Your task to perform on an android device: open app "Firefox Browser" Image 0: 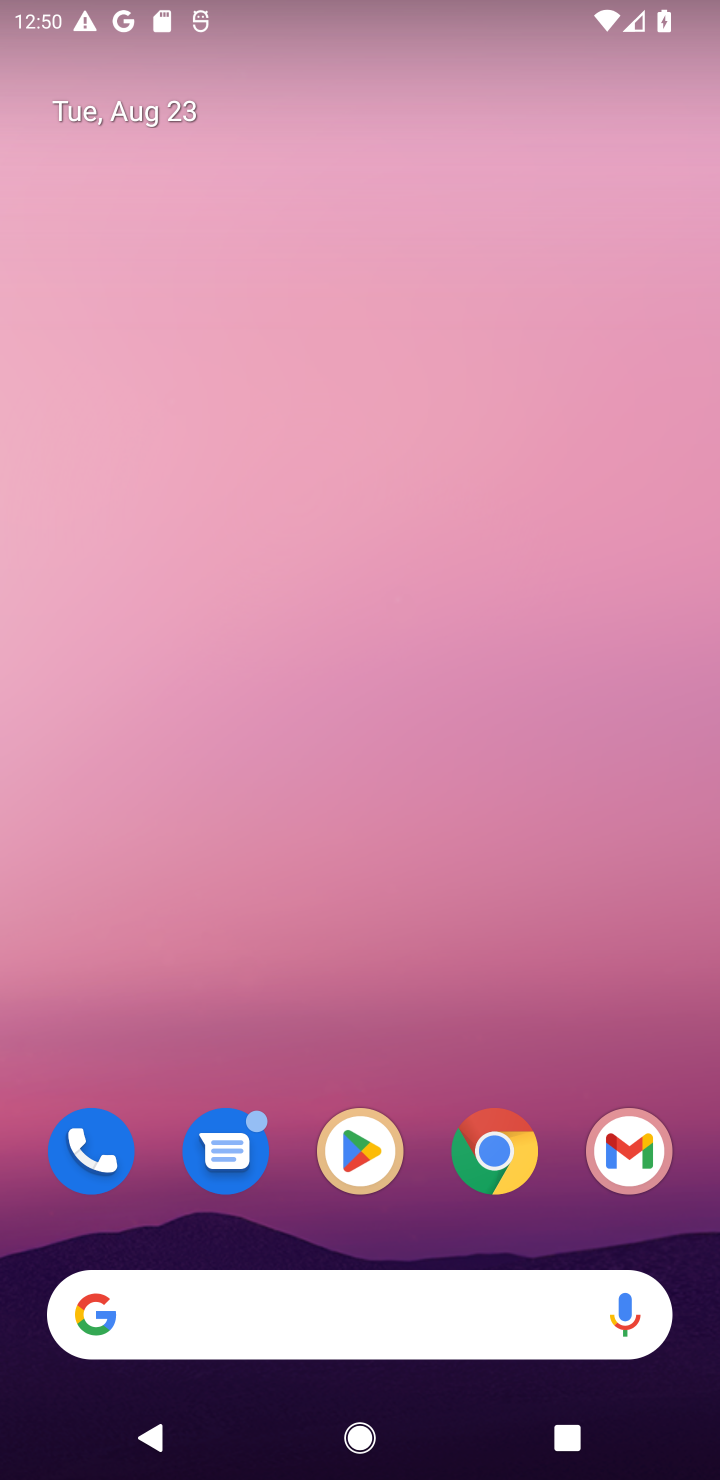
Step 0: click (326, 1164)
Your task to perform on an android device: open app "Firefox Browser" Image 1: 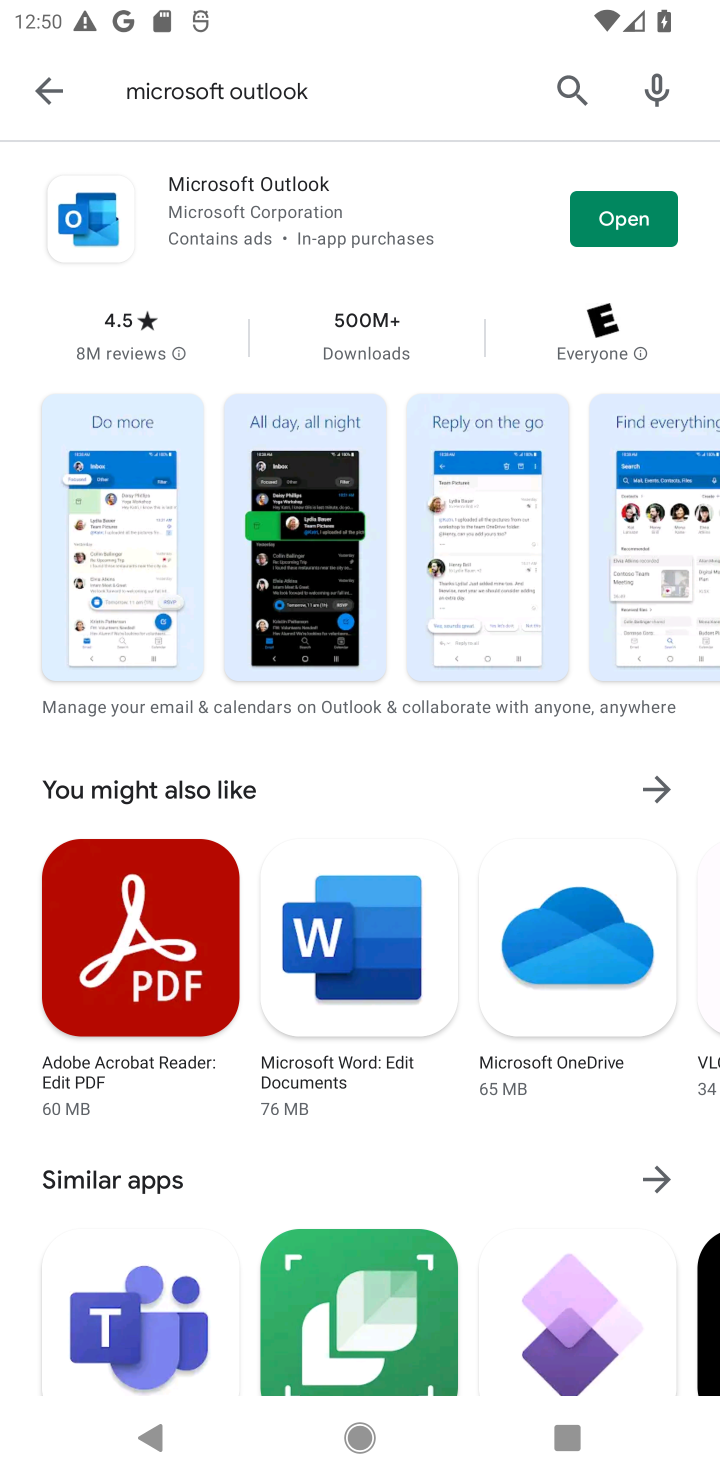
Step 1: click (578, 85)
Your task to perform on an android device: open app "Firefox Browser" Image 2: 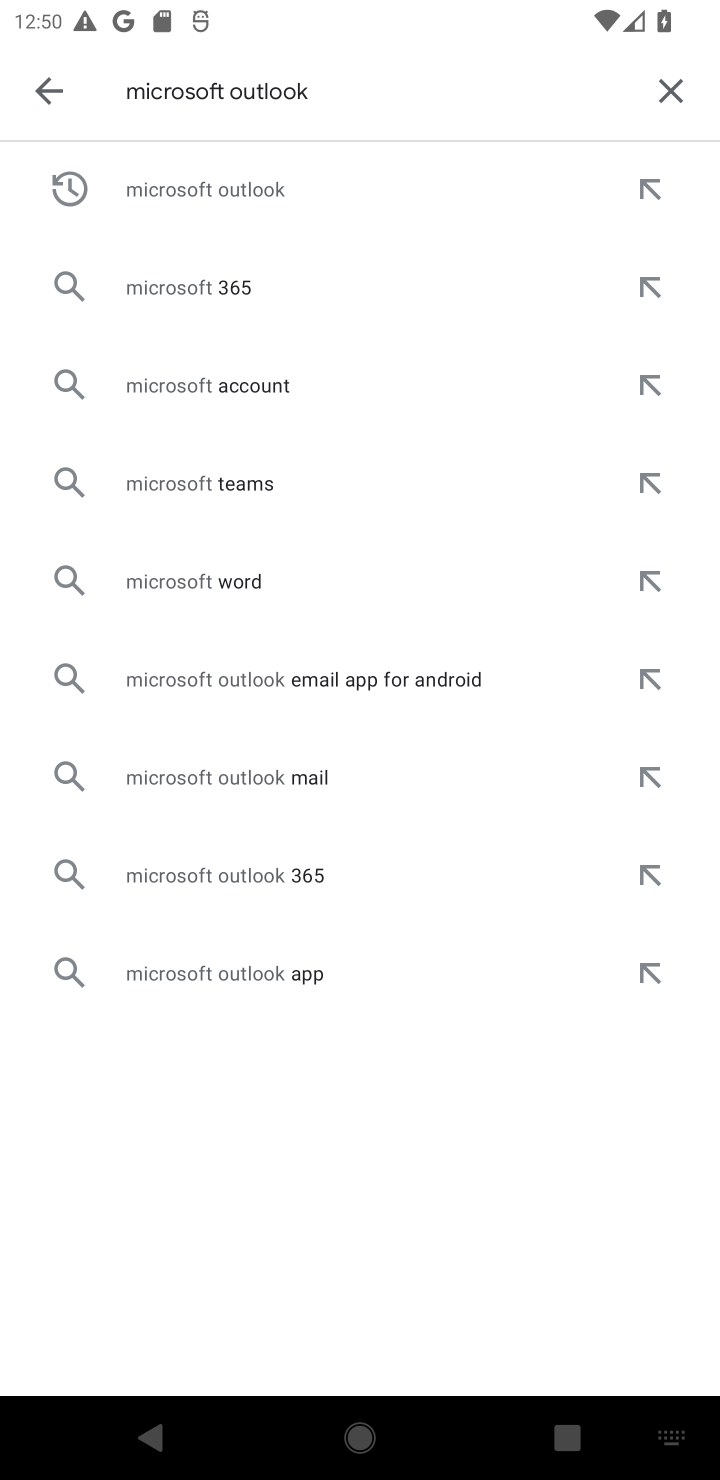
Step 2: click (665, 73)
Your task to perform on an android device: open app "Firefox Browser" Image 3: 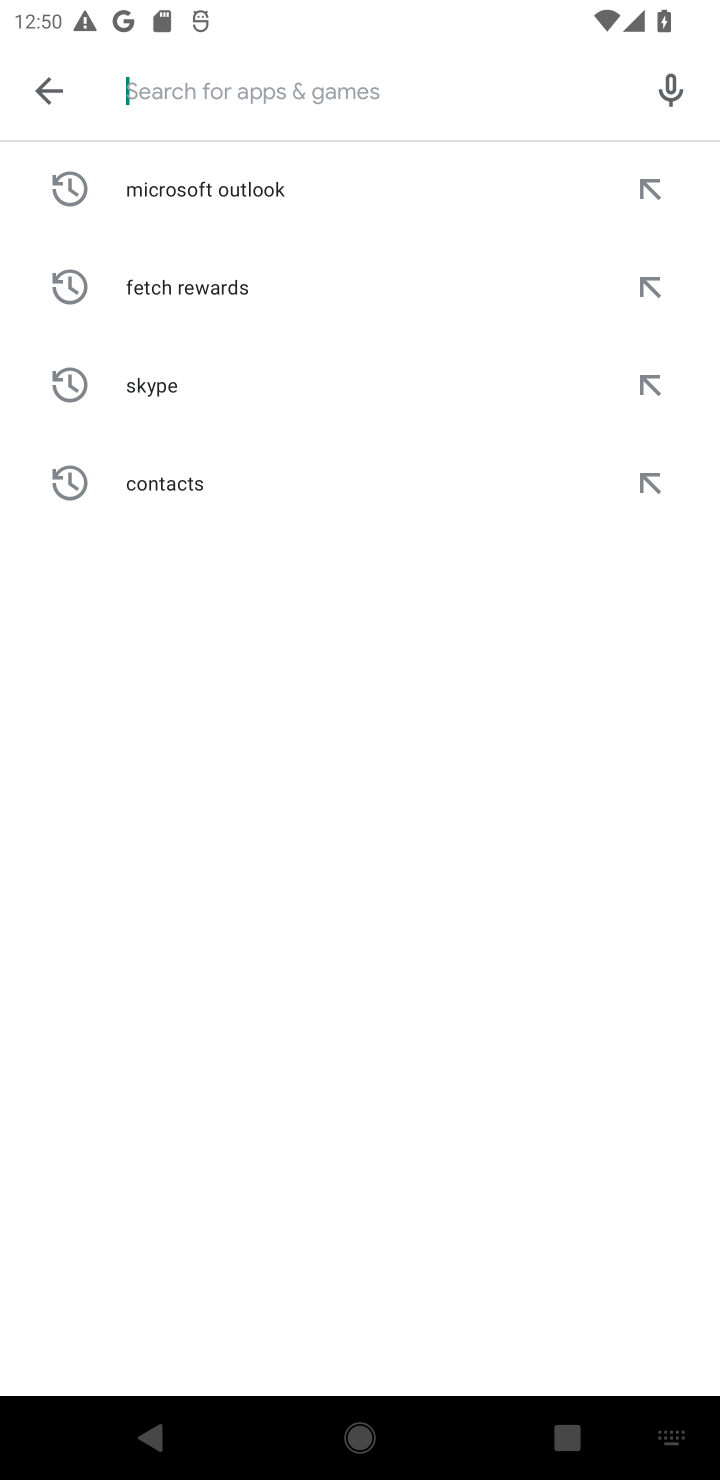
Step 3: type "Firefox Browse"
Your task to perform on an android device: open app "Firefox Browser" Image 4: 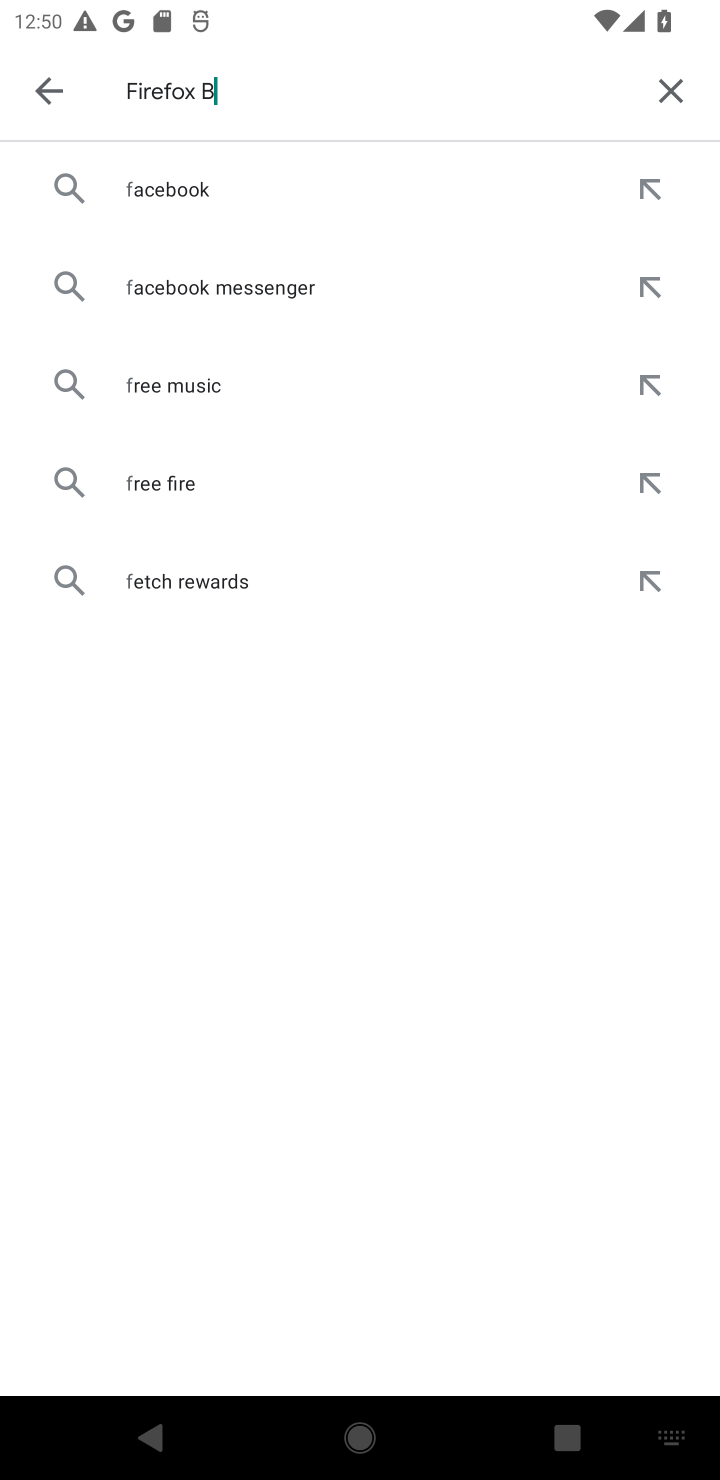
Step 4: type ""
Your task to perform on an android device: open app "Firefox Browser" Image 5: 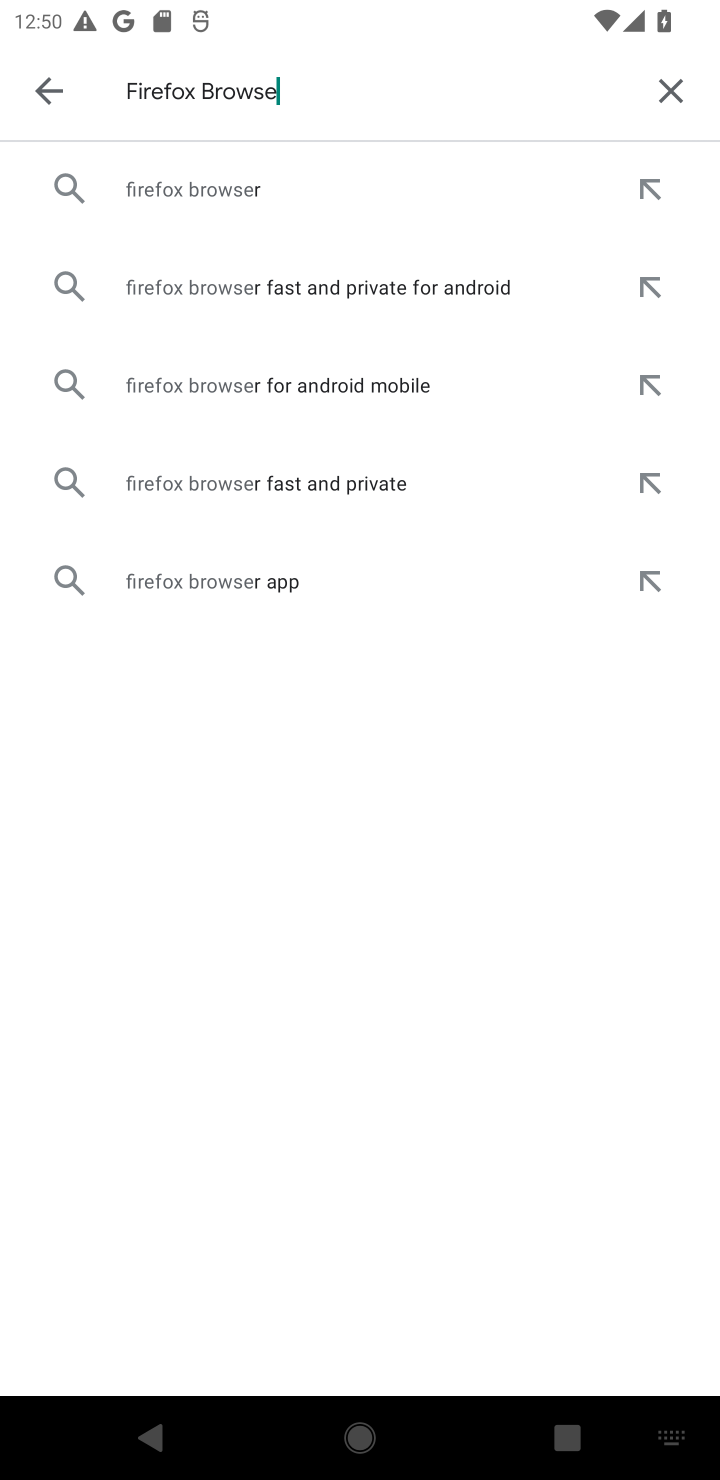
Step 5: click (275, 188)
Your task to perform on an android device: open app "Firefox Browser" Image 6: 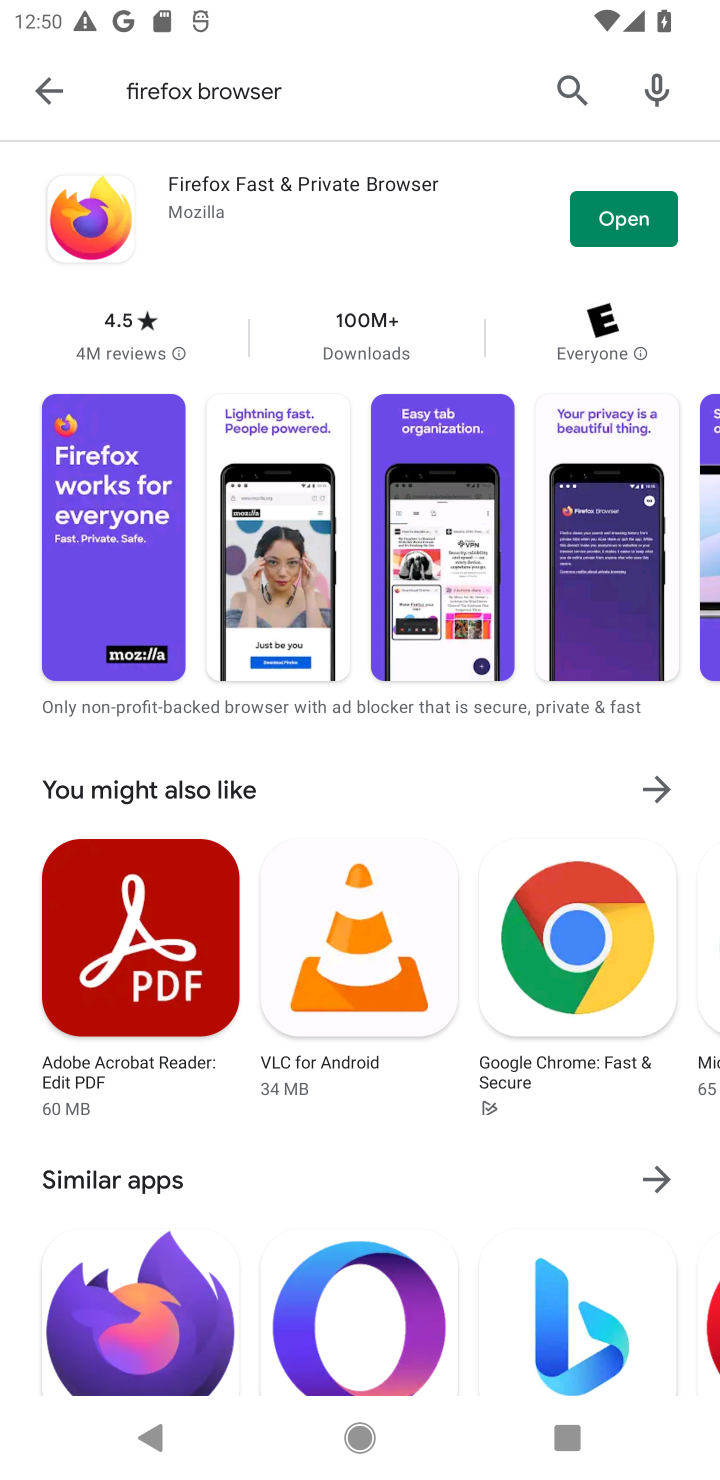
Step 6: click (604, 226)
Your task to perform on an android device: open app "Firefox Browser" Image 7: 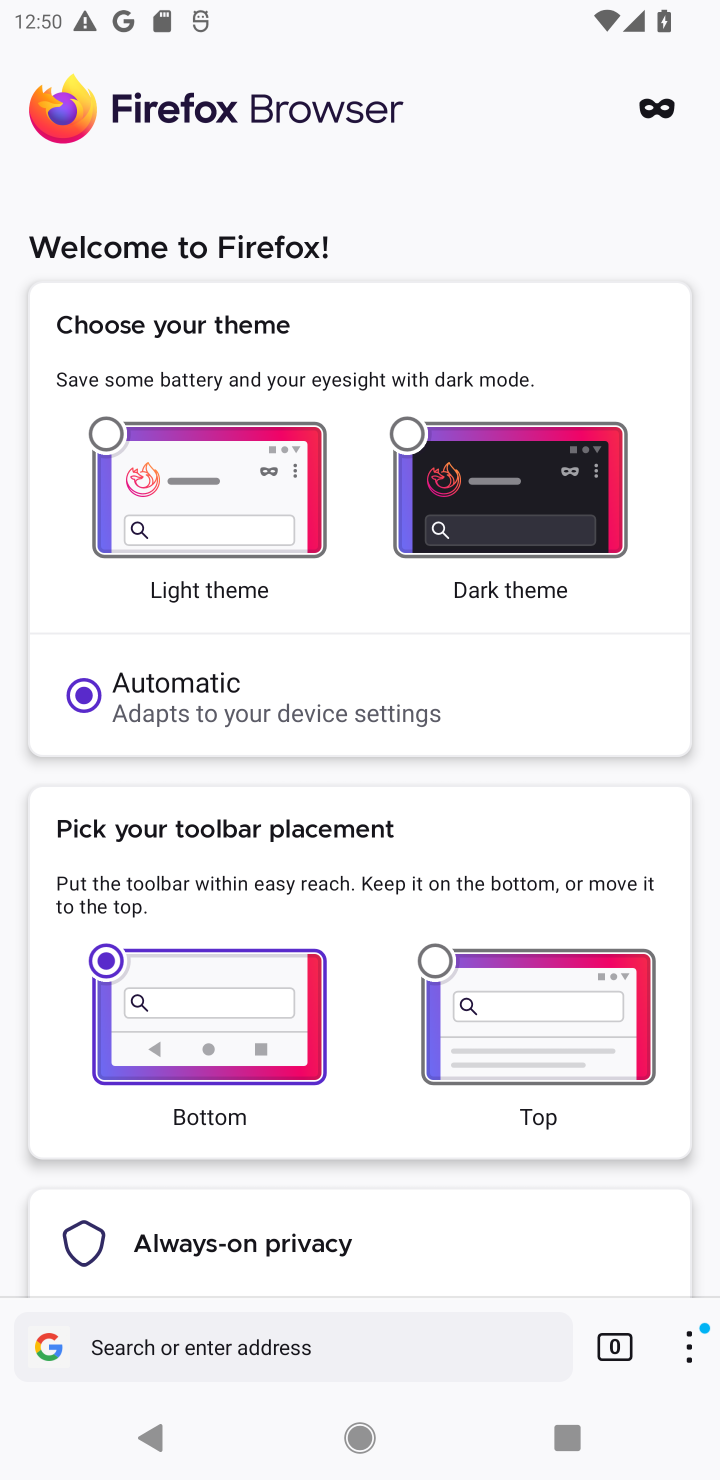
Step 7: task complete